Your task to perform on an android device: empty trash in the gmail app Image 0: 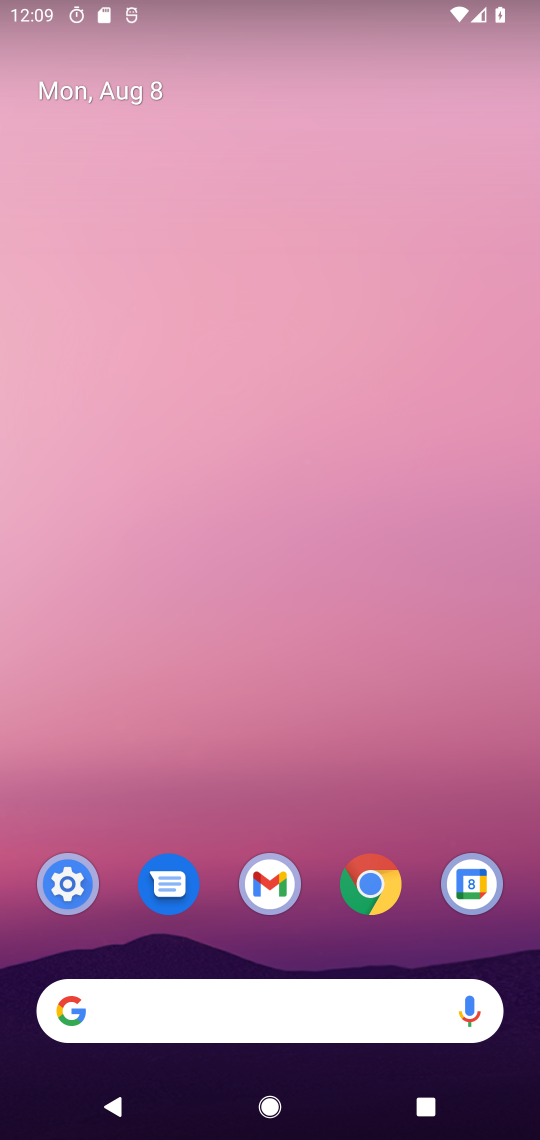
Step 0: click (275, 886)
Your task to perform on an android device: empty trash in the gmail app Image 1: 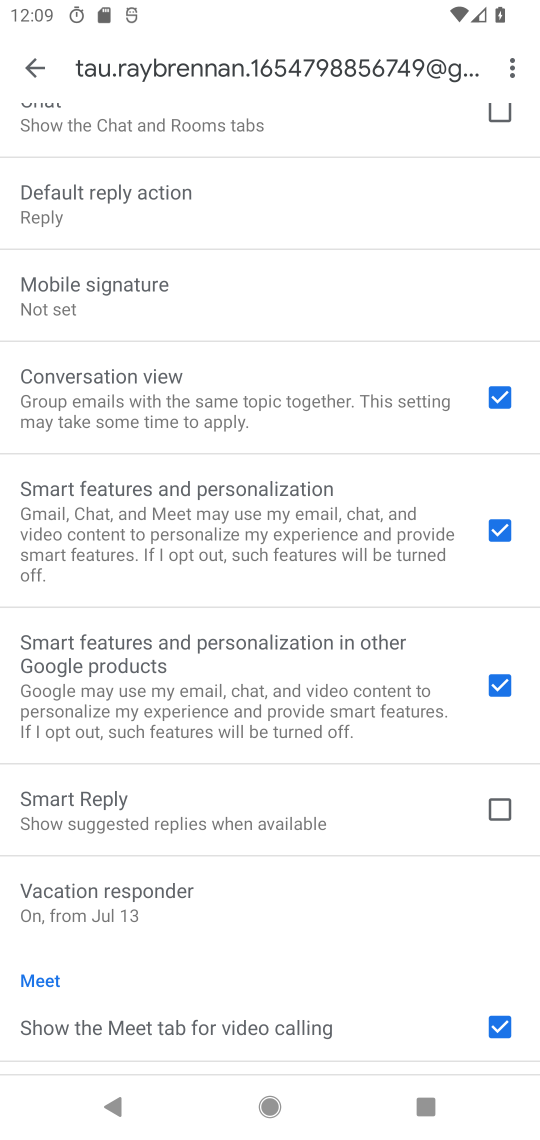
Step 1: click (36, 64)
Your task to perform on an android device: empty trash in the gmail app Image 2: 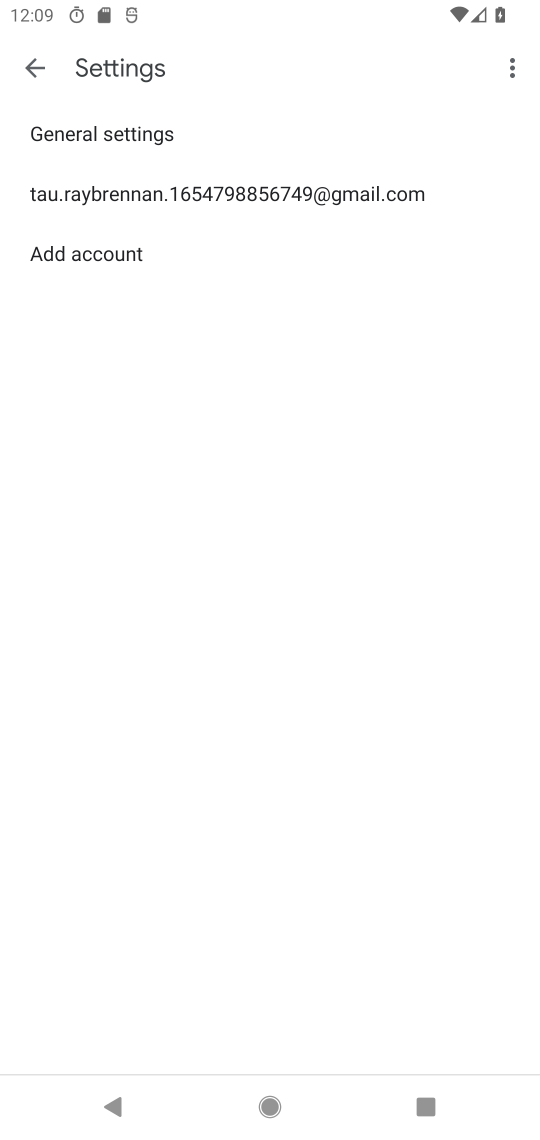
Step 2: click (36, 64)
Your task to perform on an android device: empty trash in the gmail app Image 3: 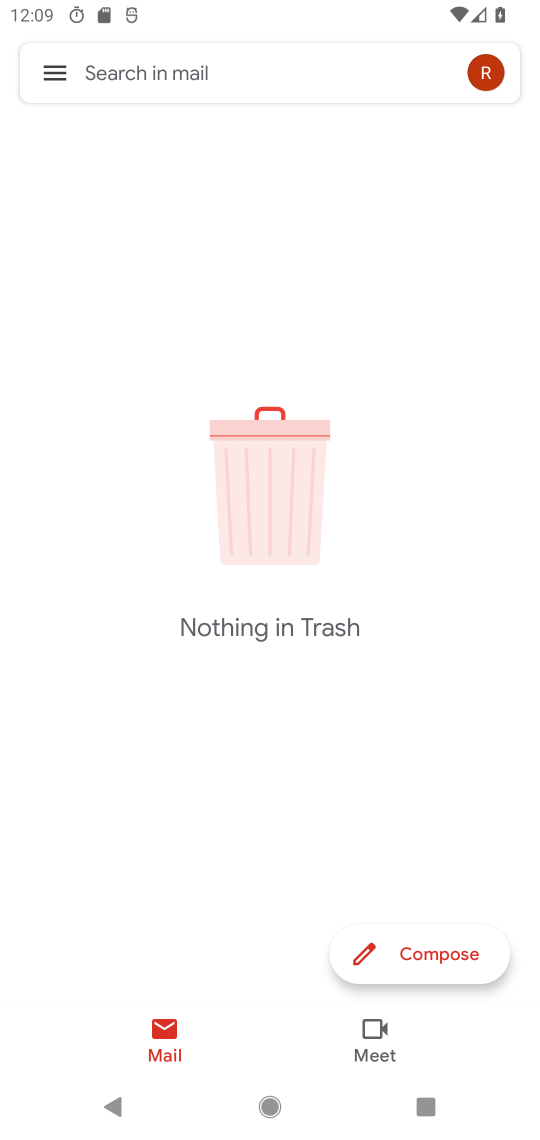
Step 3: task complete